Your task to perform on an android device: open a bookmark in the chrome app Image 0: 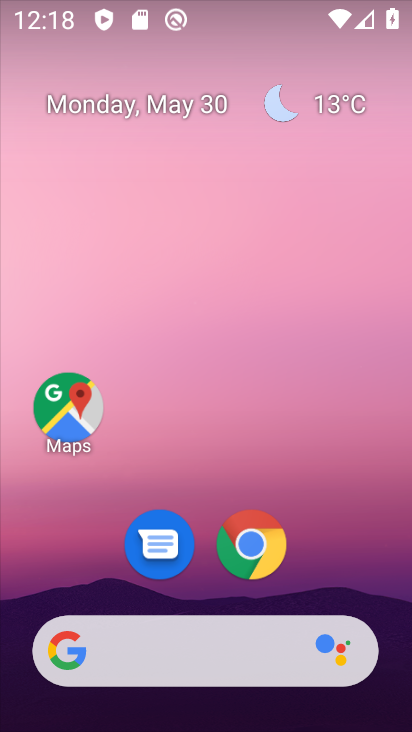
Step 0: click (289, 550)
Your task to perform on an android device: open a bookmark in the chrome app Image 1: 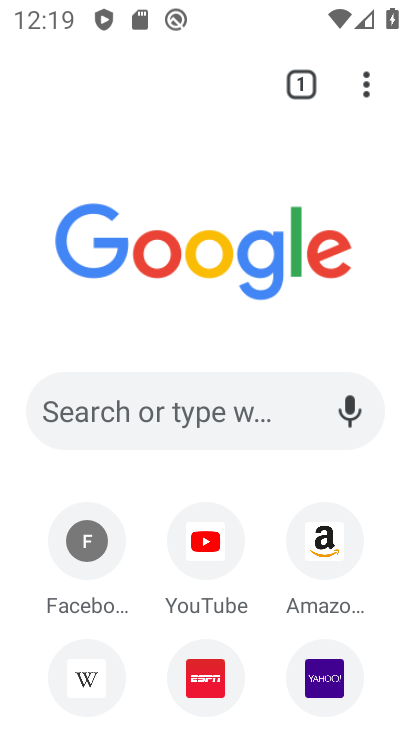
Step 1: click (383, 72)
Your task to perform on an android device: open a bookmark in the chrome app Image 2: 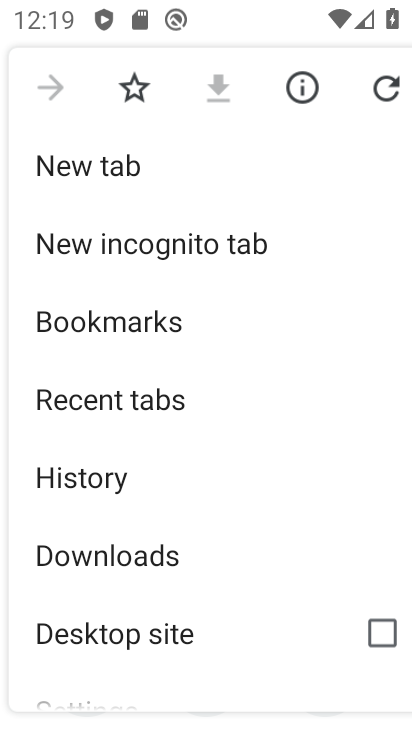
Step 2: click (214, 332)
Your task to perform on an android device: open a bookmark in the chrome app Image 3: 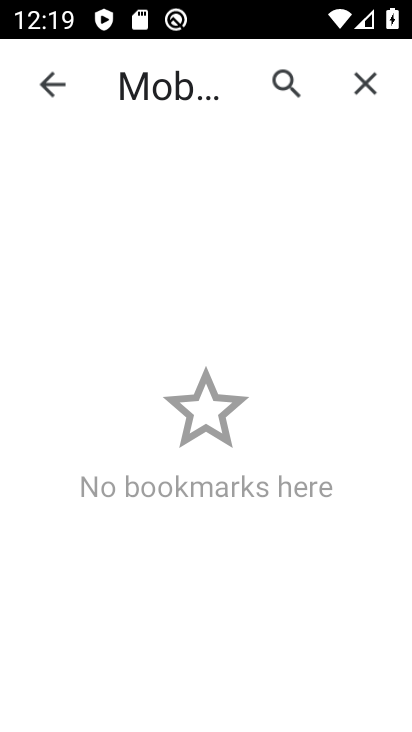
Step 3: task complete